Your task to perform on an android device: Go to display settings Image 0: 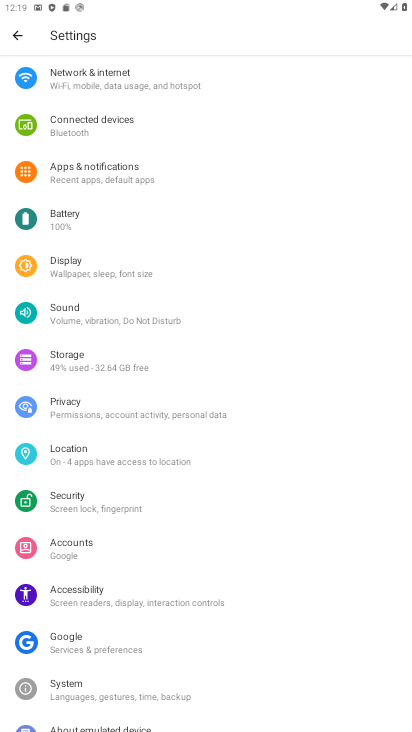
Step 0: click (82, 273)
Your task to perform on an android device: Go to display settings Image 1: 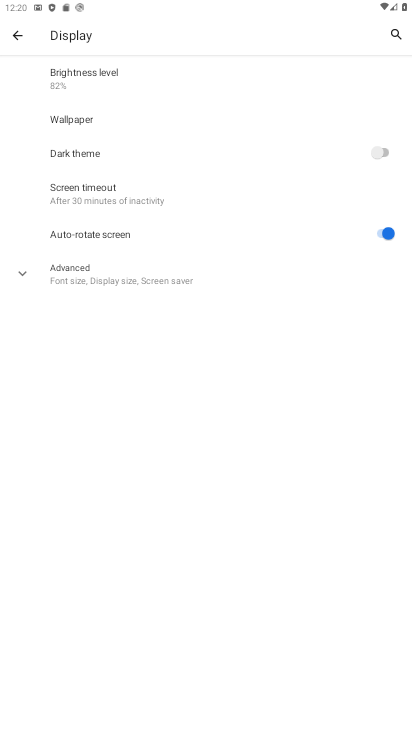
Step 1: task complete